Your task to perform on an android device: delete browsing data in the chrome app Image 0: 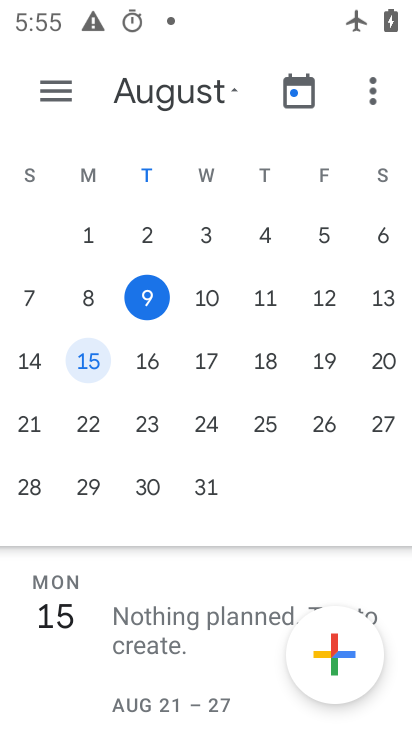
Step 0: press home button
Your task to perform on an android device: delete browsing data in the chrome app Image 1: 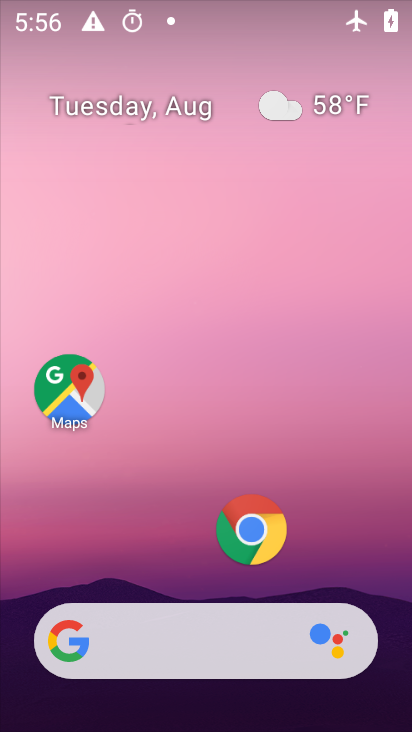
Step 1: click (244, 518)
Your task to perform on an android device: delete browsing data in the chrome app Image 2: 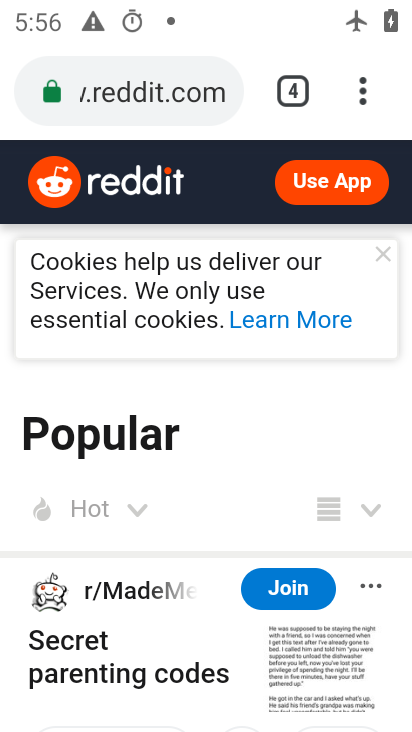
Step 2: click (361, 94)
Your task to perform on an android device: delete browsing data in the chrome app Image 3: 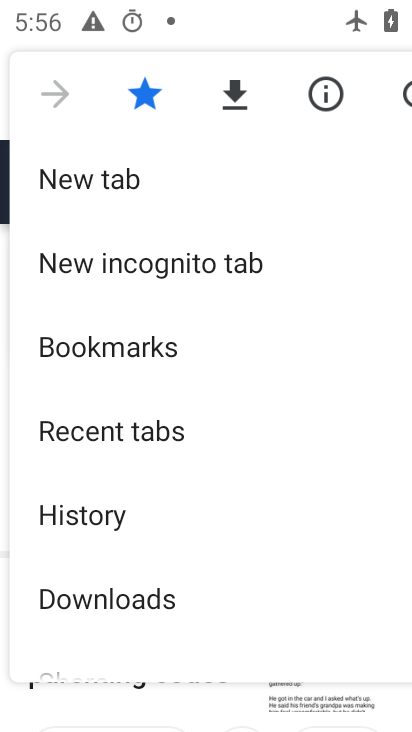
Step 3: click (116, 517)
Your task to perform on an android device: delete browsing data in the chrome app Image 4: 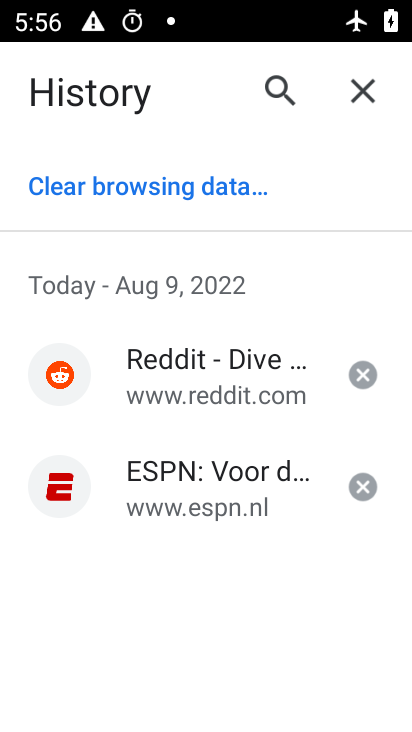
Step 4: click (152, 186)
Your task to perform on an android device: delete browsing data in the chrome app Image 5: 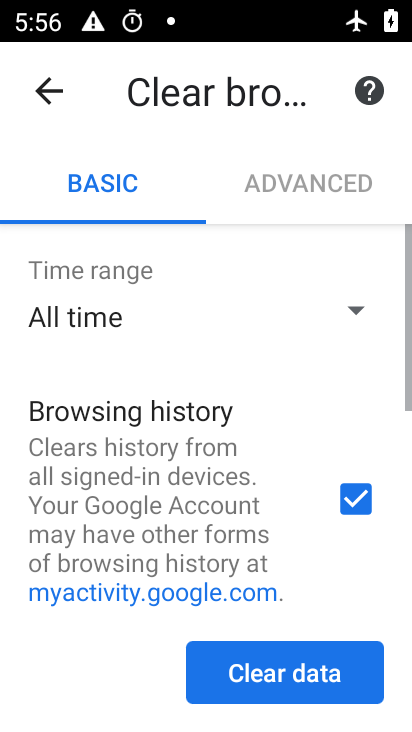
Step 5: drag from (206, 524) to (226, 212)
Your task to perform on an android device: delete browsing data in the chrome app Image 6: 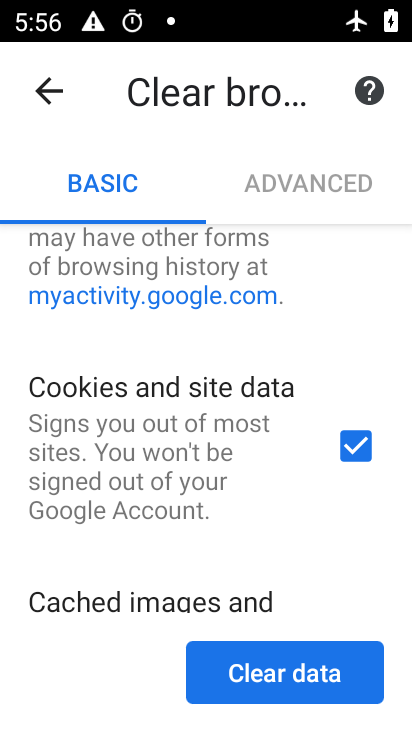
Step 6: drag from (227, 530) to (257, 229)
Your task to perform on an android device: delete browsing data in the chrome app Image 7: 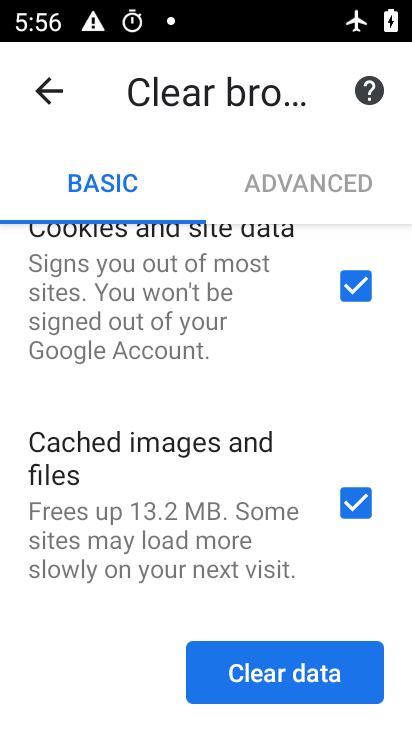
Step 7: click (275, 654)
Your task to perform on an android device: delete browsing data in the chrome app Image 8: 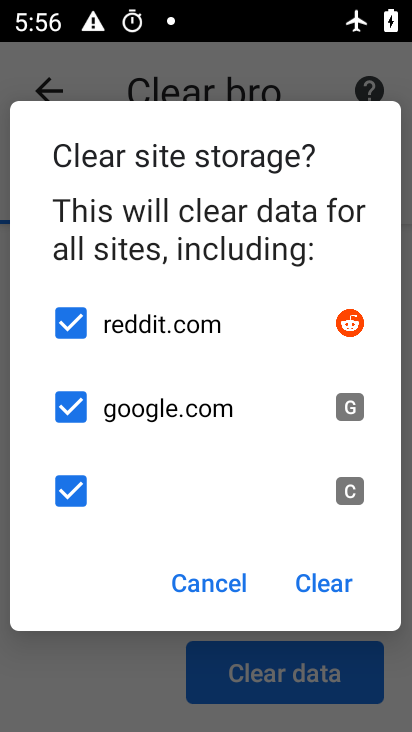
Step 8: click (327, 578)
Your task to perform on an android device: delete browsing data in the chrome app Image 9: 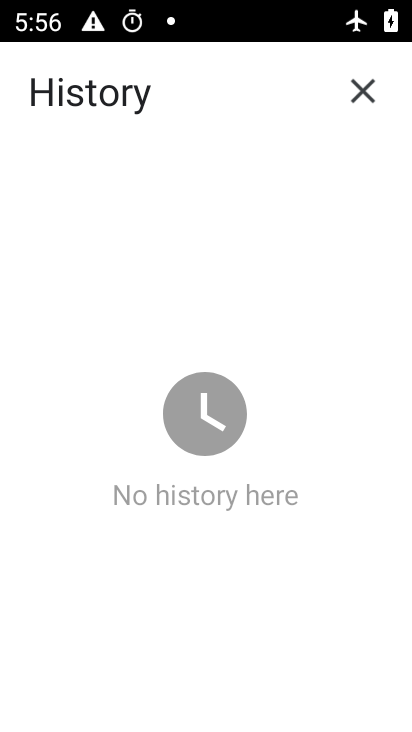
Step 9: task complete